Your task to perform on an android device: turn smart compose on in the gmail app Image 0: 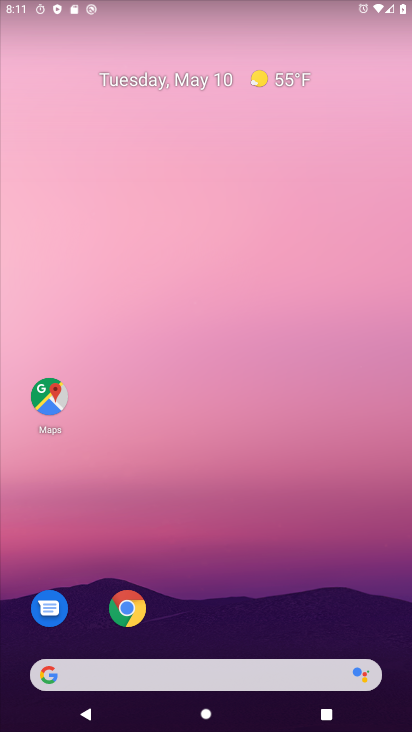
Step 0: drag from (263, 577) to (300, 108)
Your task to perform on an android device: turn smart compose on in the gmail app Image 1: 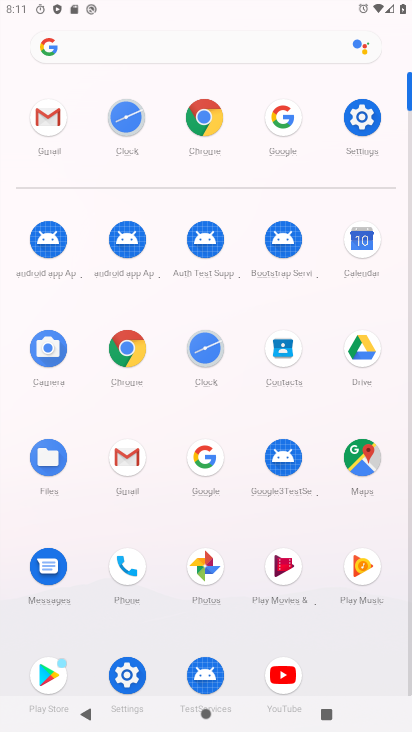
Step 1: click (47, 118)
Your task to perform on an android device: turn smart compose on in the gmail app Image 2: 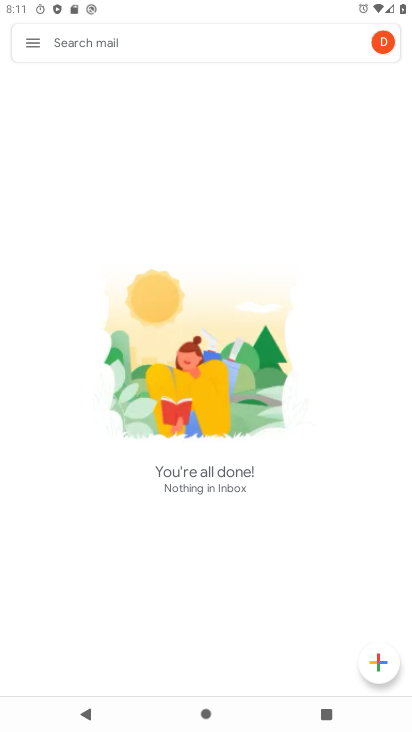
Step 2: click (33, 42)
Your task to perform on an android device: turn smart compose on in the gmail app Image 3: 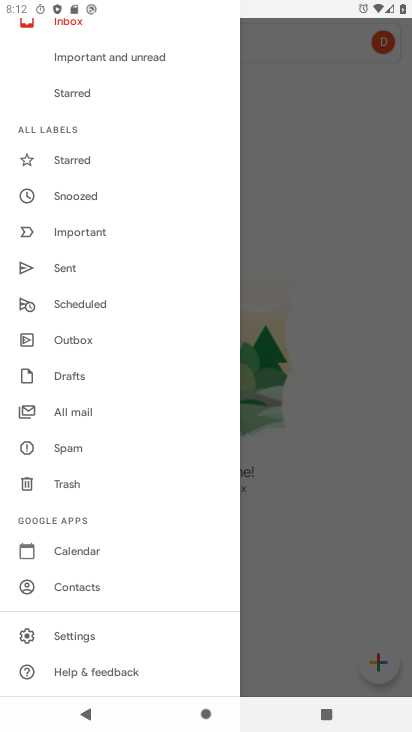
Step 3: click (63, 633)
Your task to perform on an android device: turn smart compose on in the gmail app Image 4: 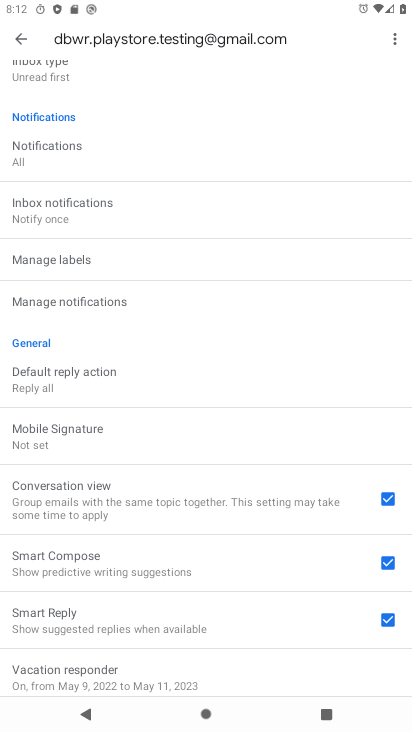
Step 4: task complete